Your task to perform on an android device: Do I have any events this weekend? Image 0: 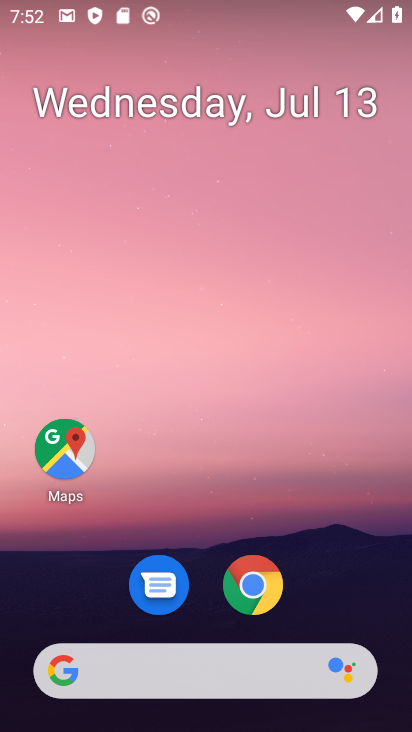
Step 0: drag from (271, 500) to (268, 1)
Your task to perform on an android device: Do I have any events this weekend? Image 1: 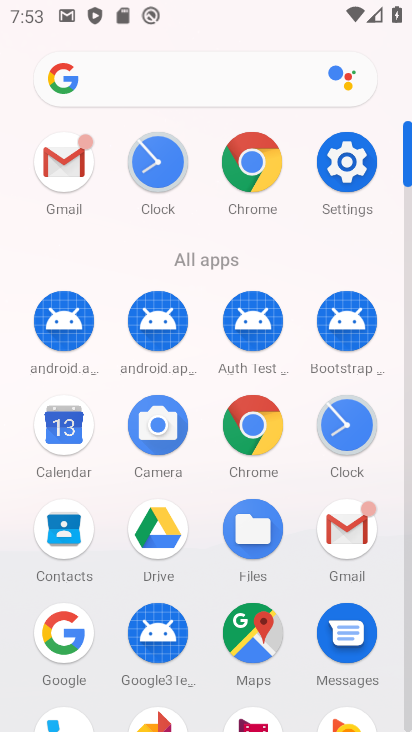
Step 1: click (65, 433)
Your task to perform on an android device: Do I have any events this weekend? Image 2: 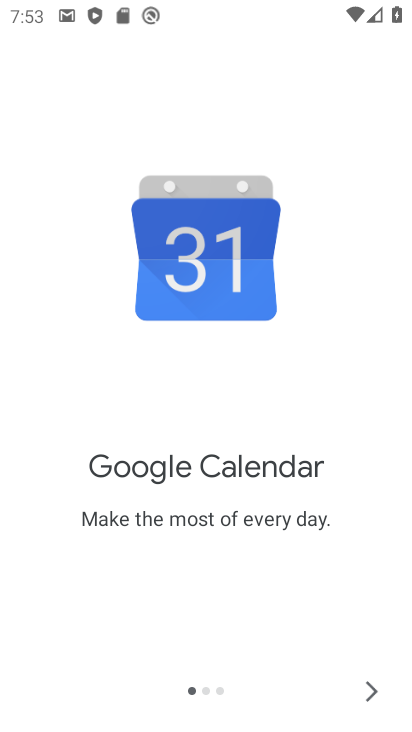
Step 2: click (372, 685)
Your task to perform on an android device: Do I have any events this weekend? Image 3: 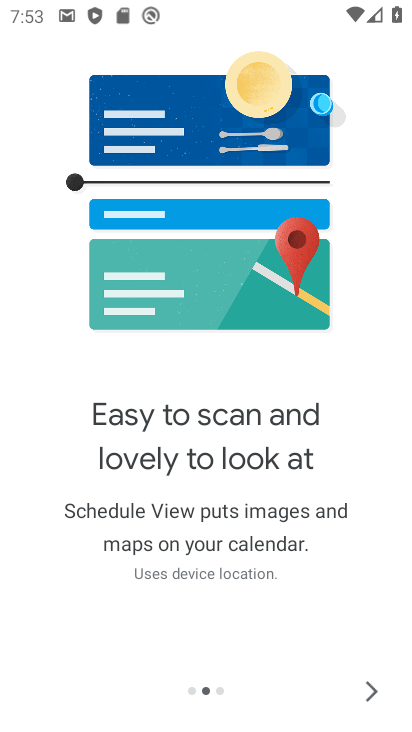
Step 3: click (372, 693)
Your task to perform on an android device: Do I have any events this weekend? Image 4: 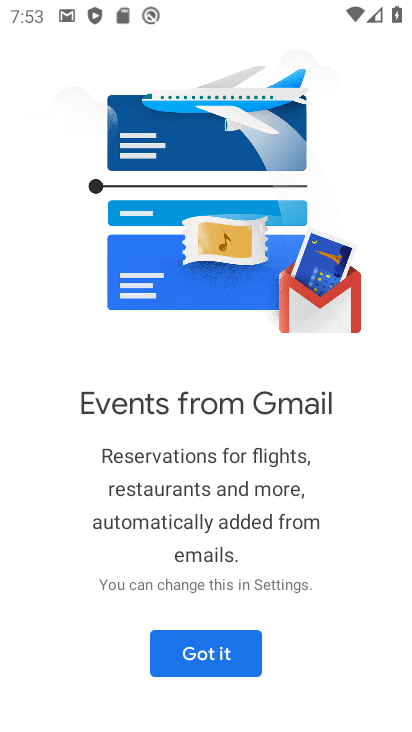
Step 4: click (240, 643)
Your task to perform on an android device: Do I have any events this weekend? Image 5: 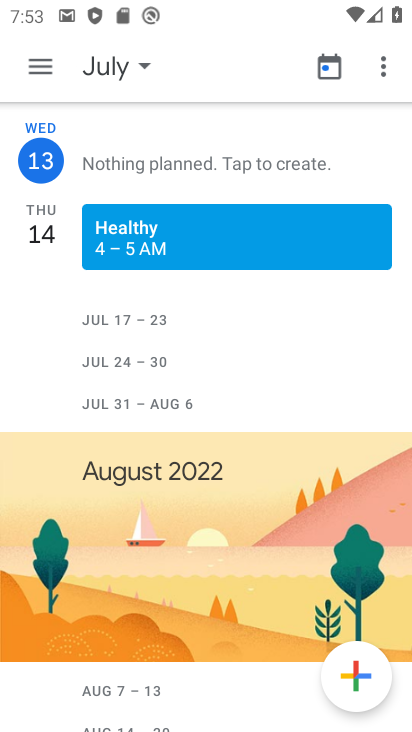
Step 5: click (34, 62)
Your task to perform on an android device: Do I have any events this weekend? Image 6: 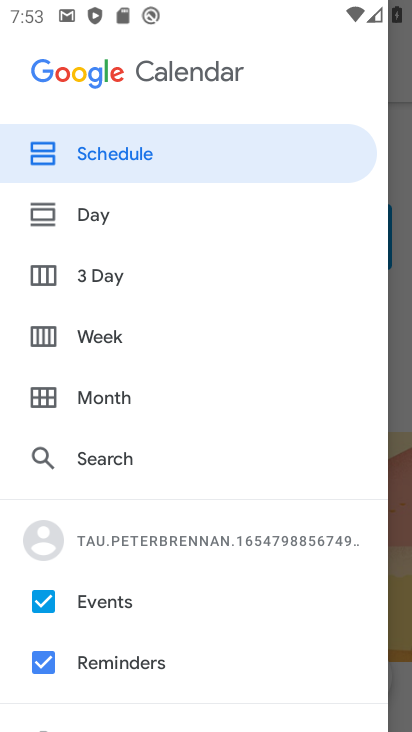
Step 6: click (94, 327)
Your task to perform on an android device: Do I have any events this weekend? Image 7: 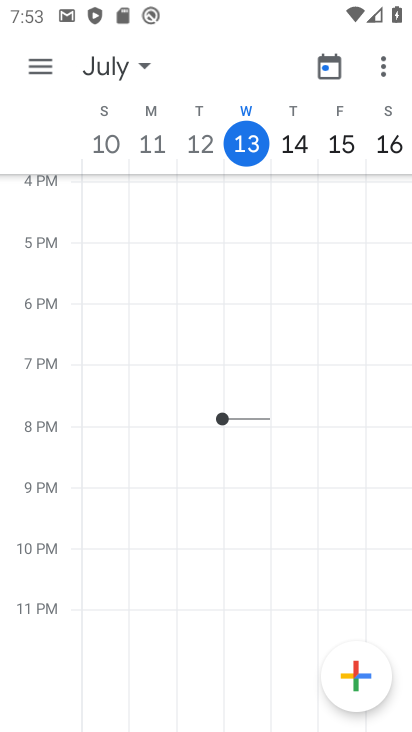
Step 7: click (387, 139)
Your task to perform on an android device: Do I have any events this weekend? Image 8: 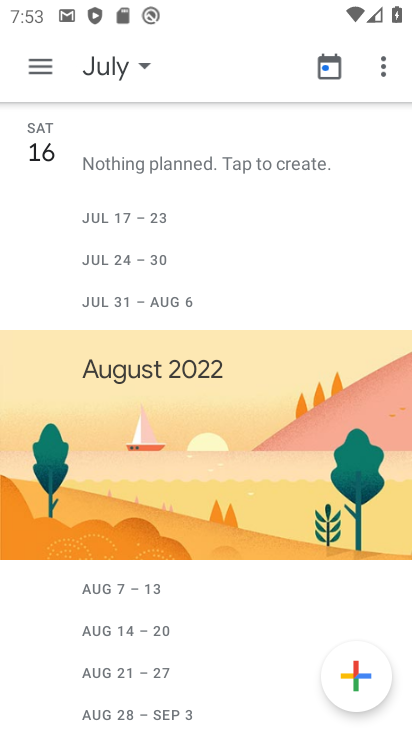
Step 8: task complete